Your task to perform on an android device: Open Google Chrome and click the shortcut for Amazon.com Image 0: 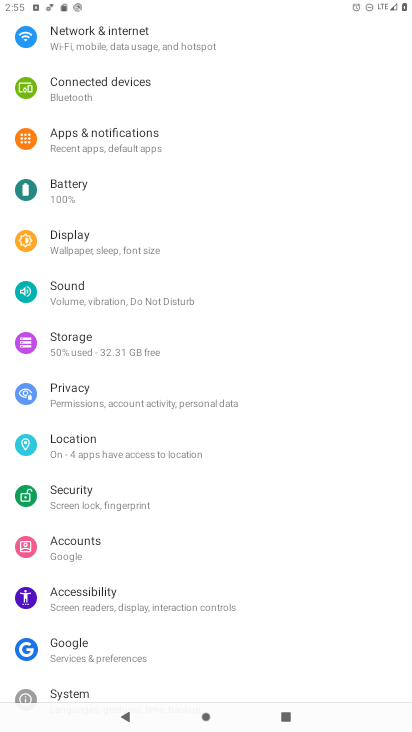
Step 0: press home button
Your task to perform on an android device: Open Google Chrome and click the shortcut for Amazon.com Image 1: 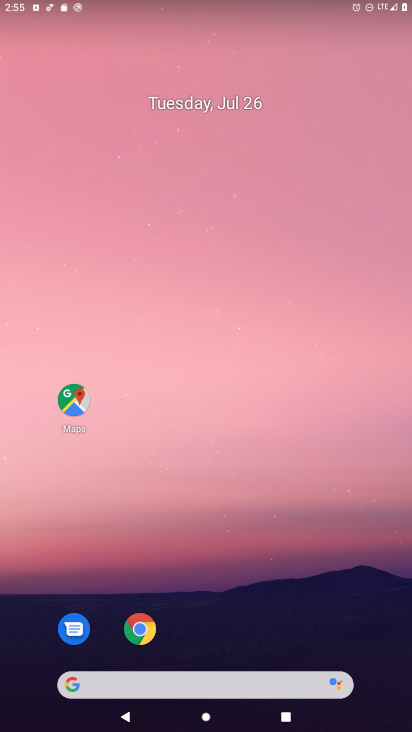
Step 1: click (138, 631)
Your task to perform on an android device: Open Google Chrome and click the shortcut for Amazon.com Image 2: 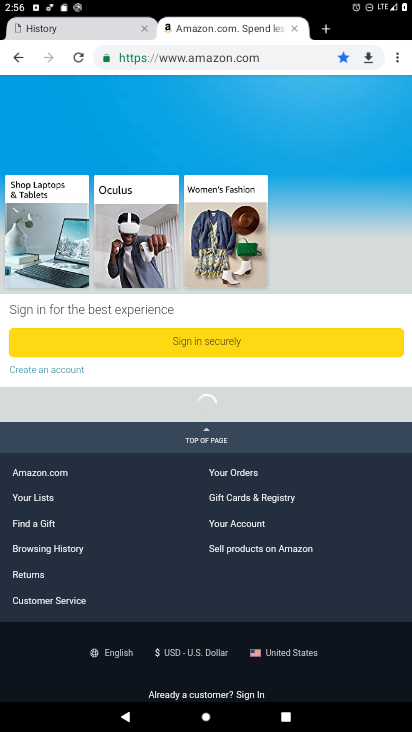
Step 2: click (326, 29)
Your task to perform on an android device: Open Google Chrome and click the shortcut for Amazon.com Image 3: 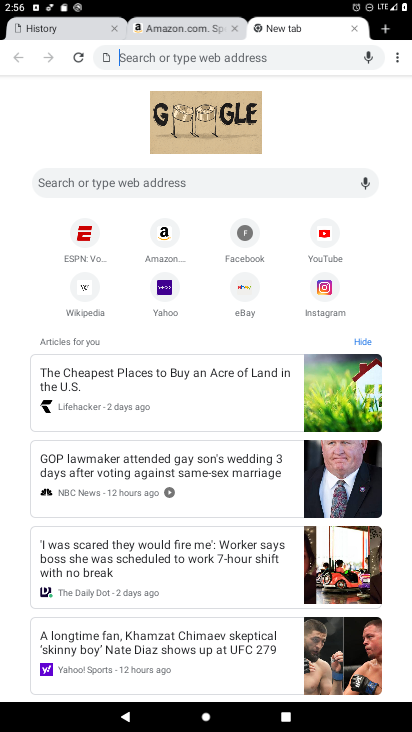
Step 3: click (162, 231)
Your task to perform on an android device: Open Google Chrome and click the shortcut for Amazon.com Image 4: 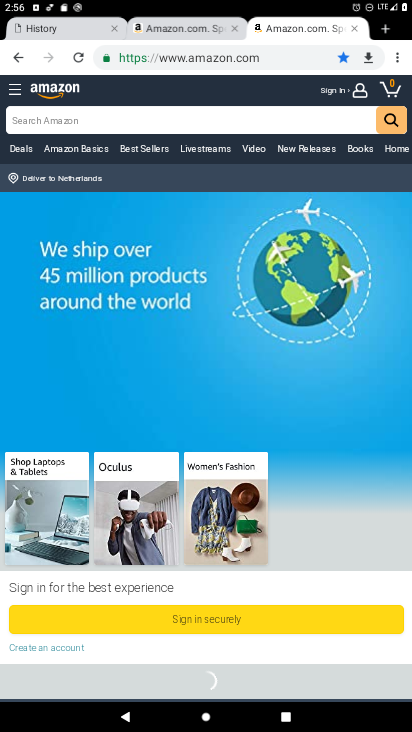
Step 4: task complete